Your task to perform on an android device: What's the weather going to be tomorrow? Image 0: 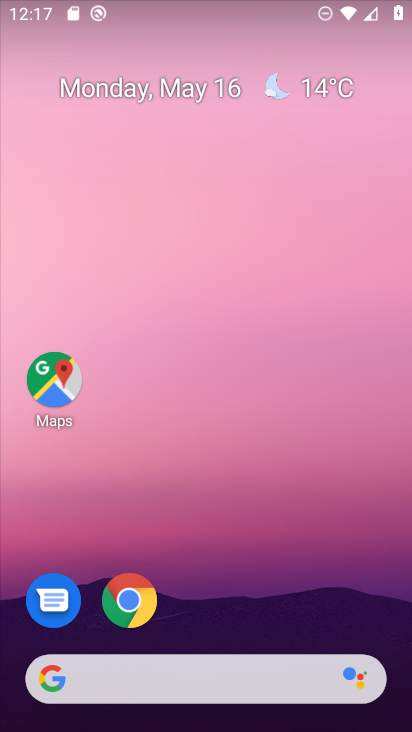
Step 0: click (318, 89)
Your task to perform on an android device: What's the weather going to be tomorrow? Image 1: 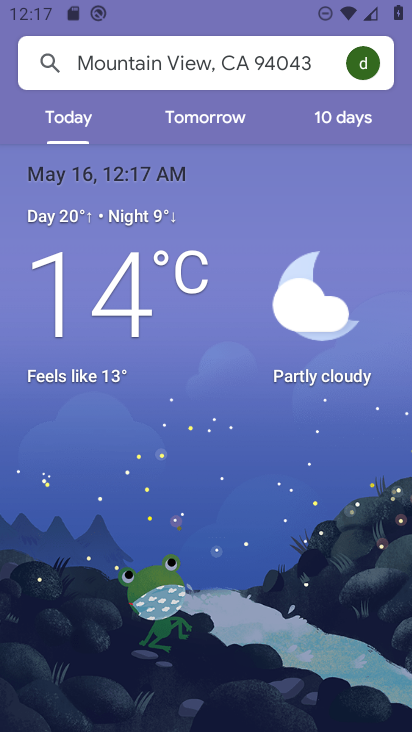
Step 1: click (210, 114)
Your task to perform on an android device: What's the weather going to be tomorrow? Image 2: 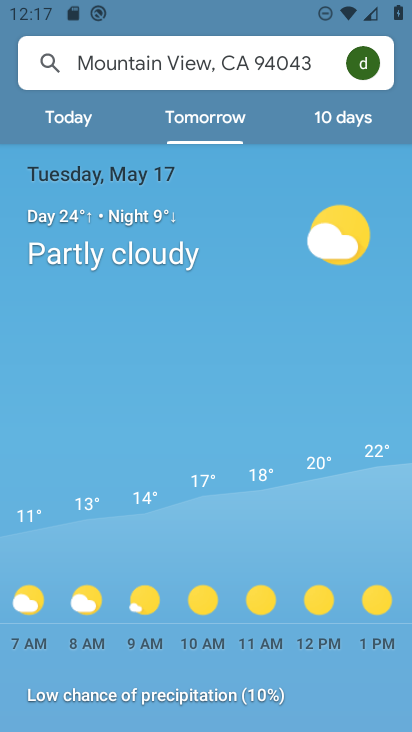
Step 2: task complete